Your task to perform on an android device: manage bookmarks in the chrome app Image 0: 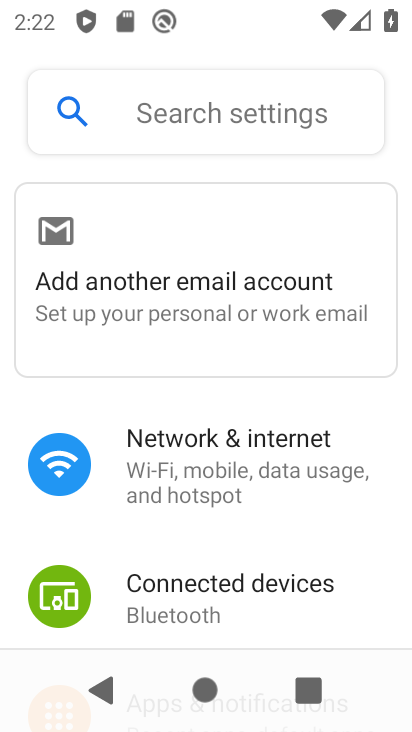
Step 0: press home button
Your task to perform on an android device: manage bookmarks in the chrome app Image 1: 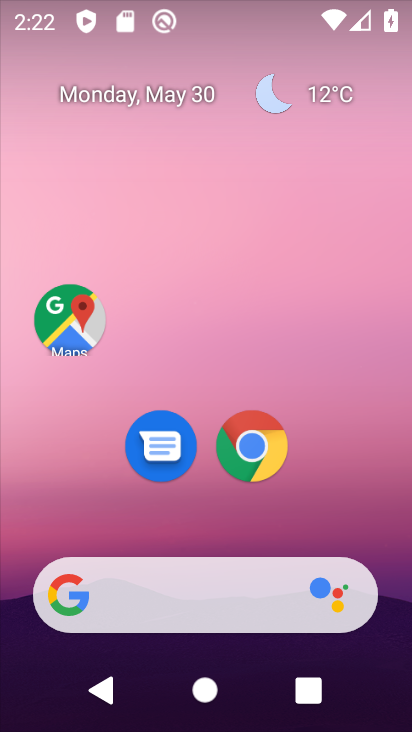
Step 1: click (255, 444)
Your task to perform on an android device: manage bookmarks in the chrome app Image 2: 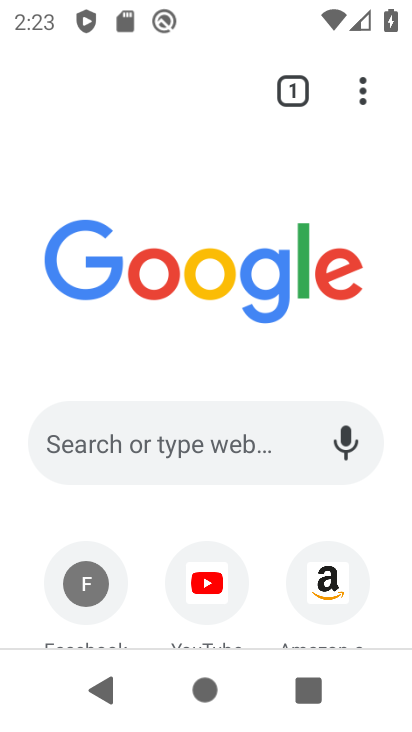
Step 2: click (364, 92)
Your task to perform on an android device: manage bookmarks in the chrome app Image 3: 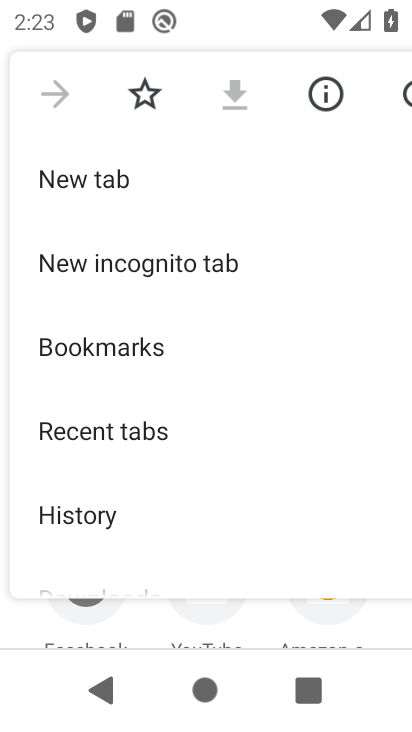
Step 3: click (139, 352)
Your task to perform on an android device: manage bookmarks in the chrome app Image 4: 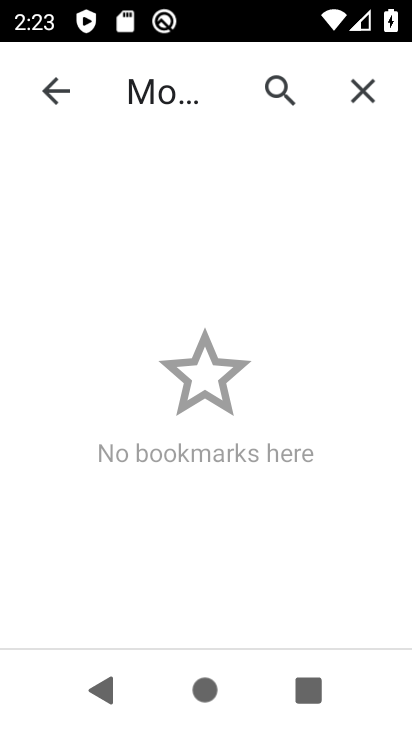
Step 4: task complete